Your task to perform on an android device: turn off picture-in-picture Image 0: 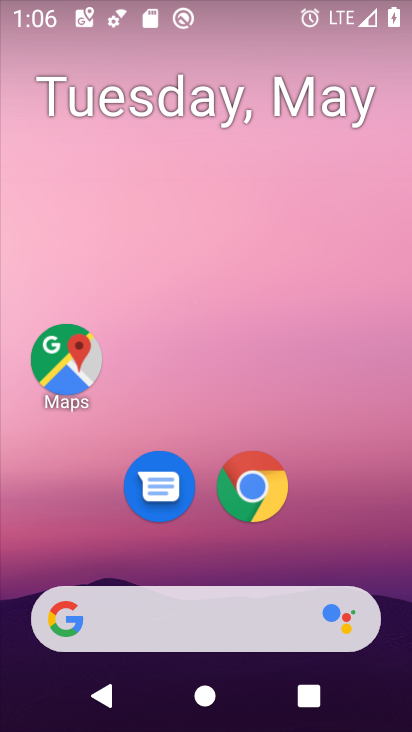
Step 0: drag from (25, 602) to (262, 136)
Your task to perform on an android device: turn off picture-in-picture Image 1: 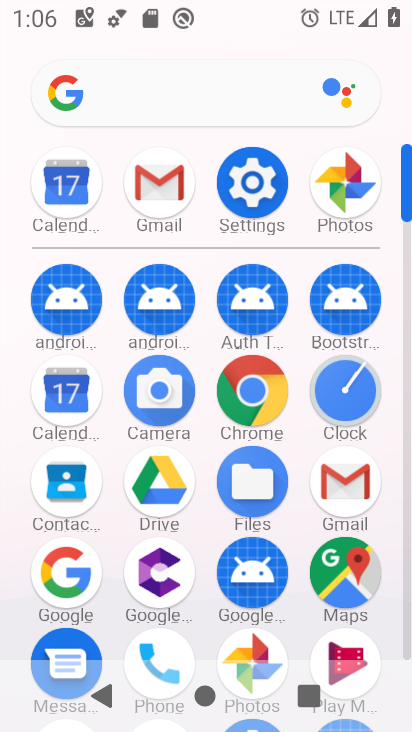
Step 1: click (249, 189)
Your task to perform on an android device: turn off picture-in-picture Image 2: 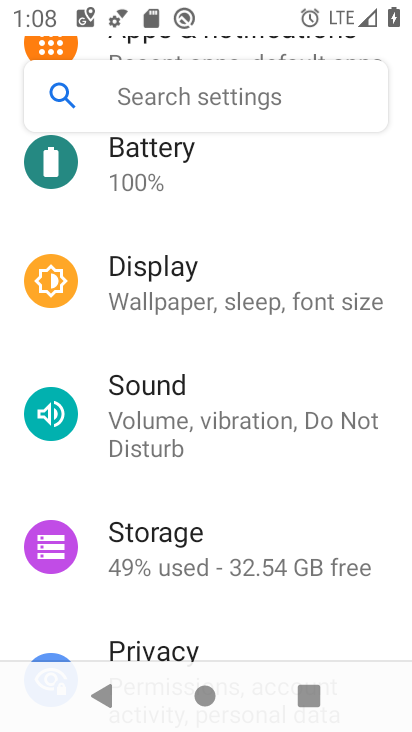
Step 2: drag from (20, 629) to (234, 248)
Your task to perform on an android device: turn off picture-in-picture Image 3: 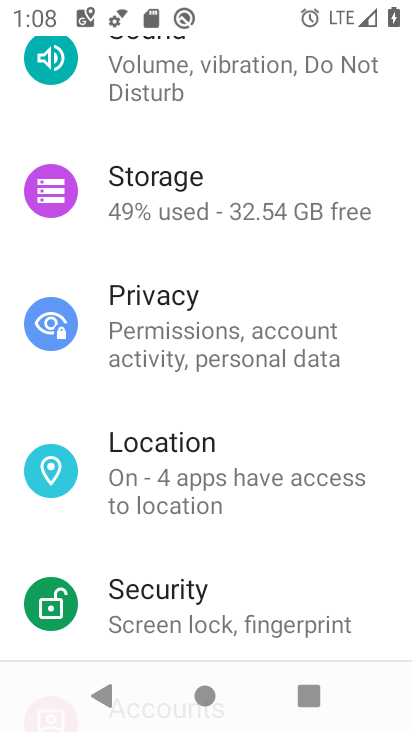
Step 3: drag from (223, 224) to (109, 623)
Your task to perform on an android device: turn off picture-in-picture Image 4: 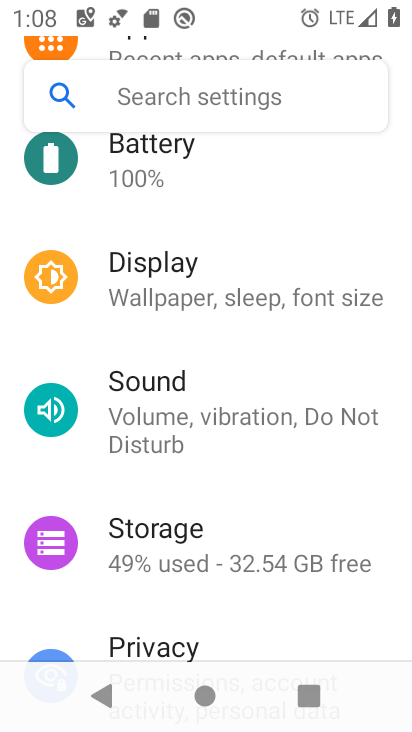
Step 4: drag from (203, 302) to (194, 664)
Your task to perform on an android device: turn off picture-in-picture Image 5: 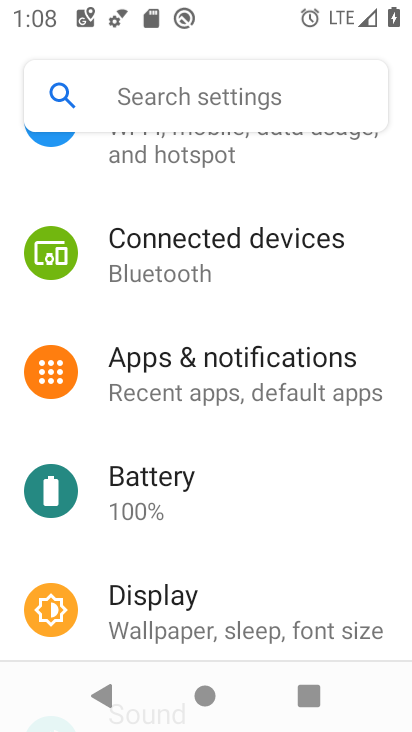
Step 5: click (234, 341)
Your task to perform on an android device: turn off picture-in-picture Image 6: 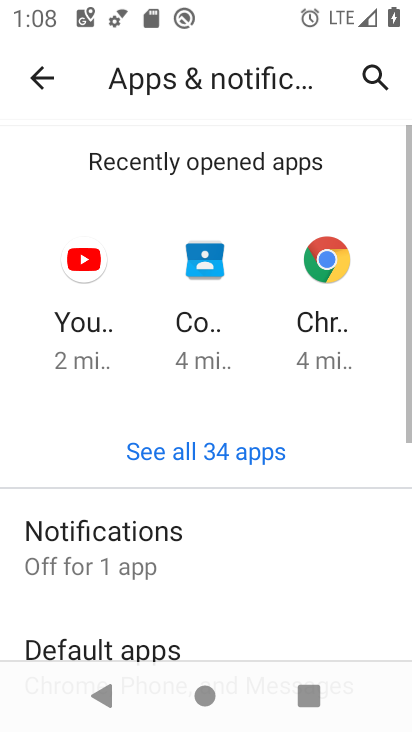
Step 6: drag from (66, 487) to (276, 171)
Your task to perform on an android device: turn off picture-in-picture Image 7: 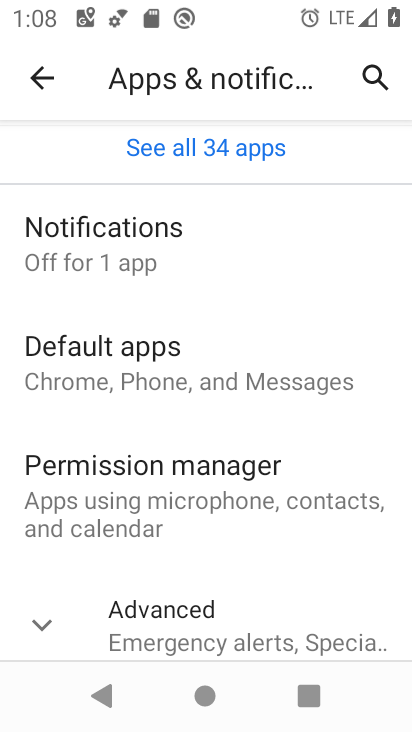
Step 7: drag from (129, 639) to (302, 298)
Your task to perform on an android device: turn off picture-in-picture Image 8: 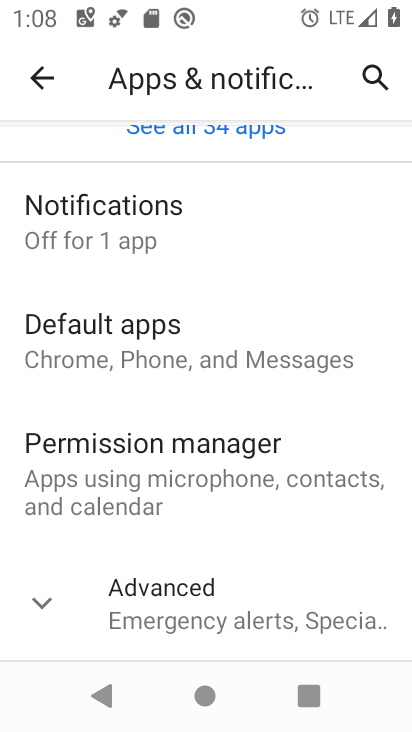
Step 8: click (216, 596)
Your task to perform on an android device: turn off picture-in-picture Image 9: 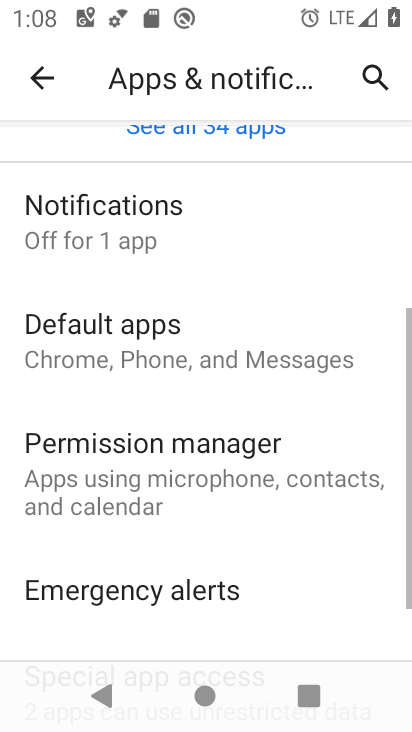
Step 9: drag from (8, 625) to (247, 276)
Your task to perform on an android device: turn off picture-in-picture Image 10: 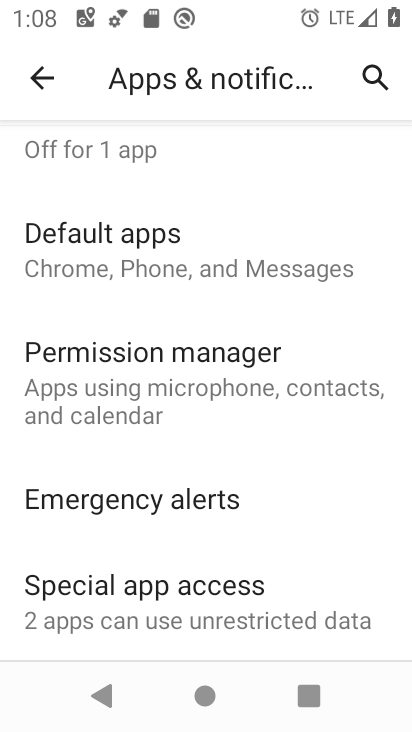
Step 10: click (131, 595)
Your task to perform on an android device: turn off picture-in-picture Image 11: 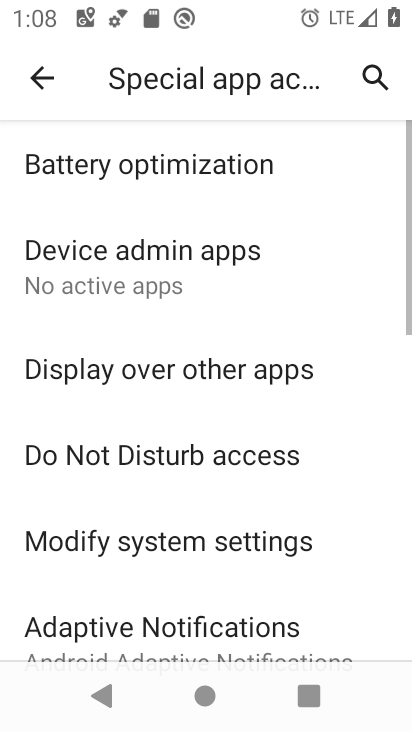
Step 11: drag from (24, 506) to (148, 283)
Your task to perform on an android device: turn off picture-in-picture Image 12: 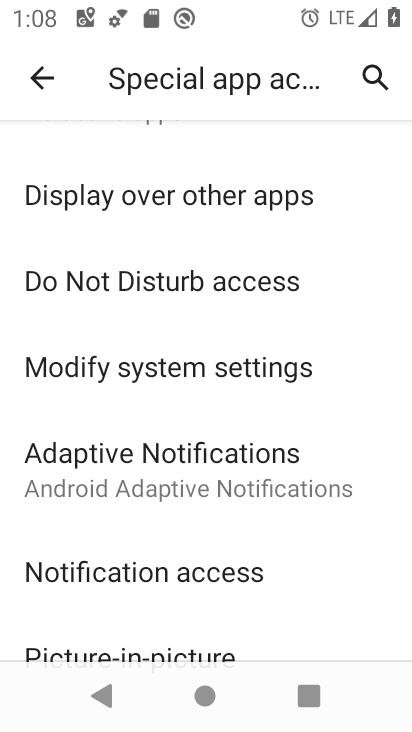
Step 12: drag from (15, 552) to (186, 312)
Your task to perform on an android device: turn off picture-in-picture Image 13: 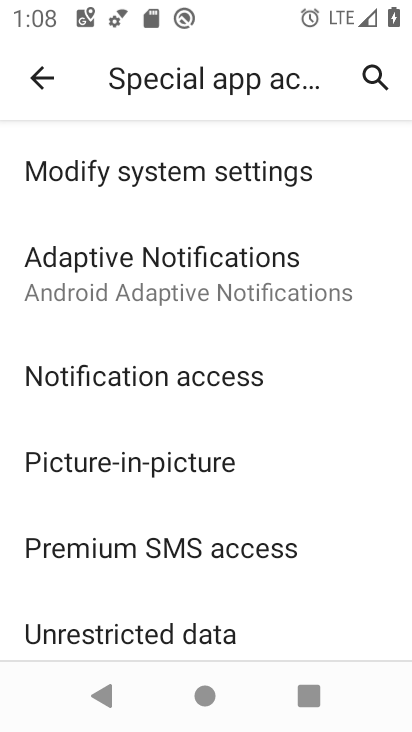
Step 13: click (127, 461)
Your task to perform on an android device: turn off picture-in-picture Image 14: 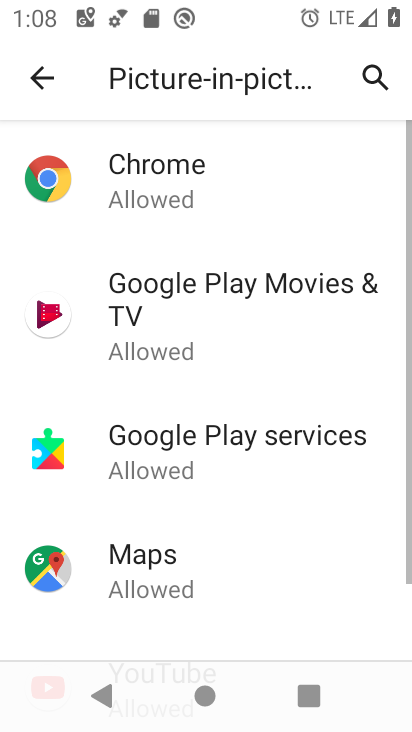
Step 14: click (218, 187)
Your task to perform on an android device: turn off picture-in-picture Image 15: 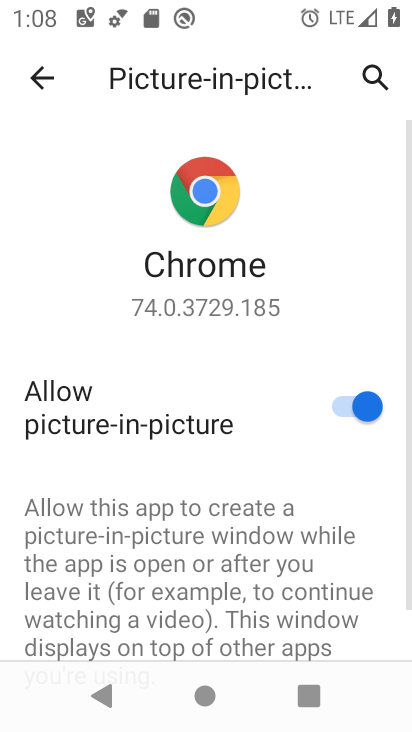
Step 15: click (367, 401)
Your task to perform on an android device: turn off picture-in-picture Image 16: 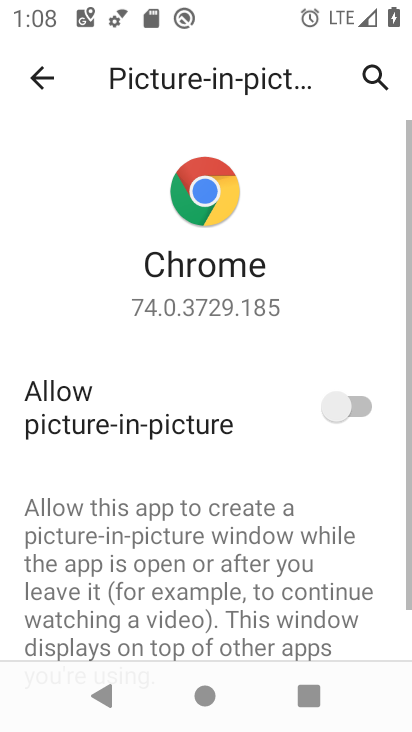
Step 16: press back button
Your task to perform on an android device: turn off picture-in-picture Image 17: 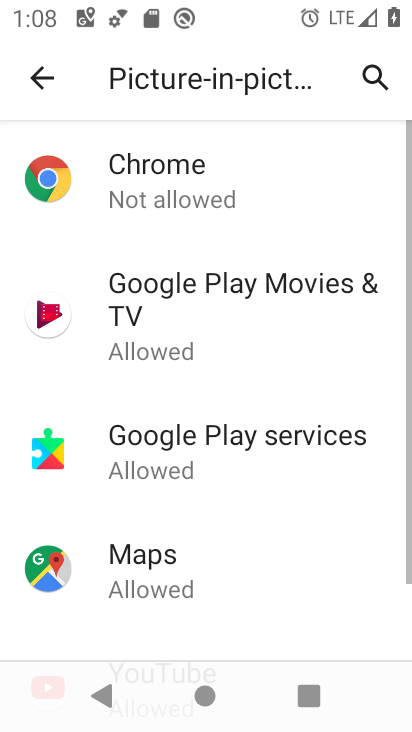
Step 17: click (135, 294)
Your task to perform on an android device: turn off picture-in-picture Image 18: 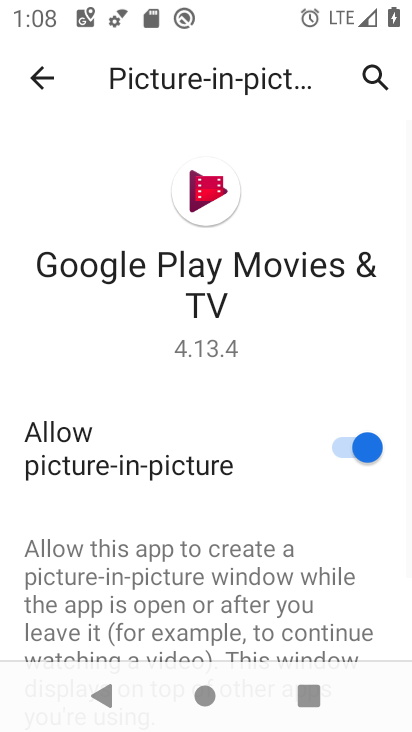
Step 18: click (367, 443)
Your task to perform on an android device: turn off picture-in-picture Image 19: 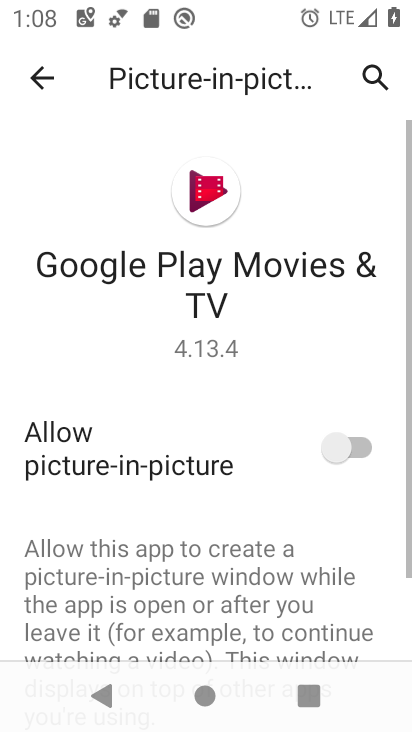
Step 19: task complete